Your task to perform on an android device: Open privacy settings Image 0: 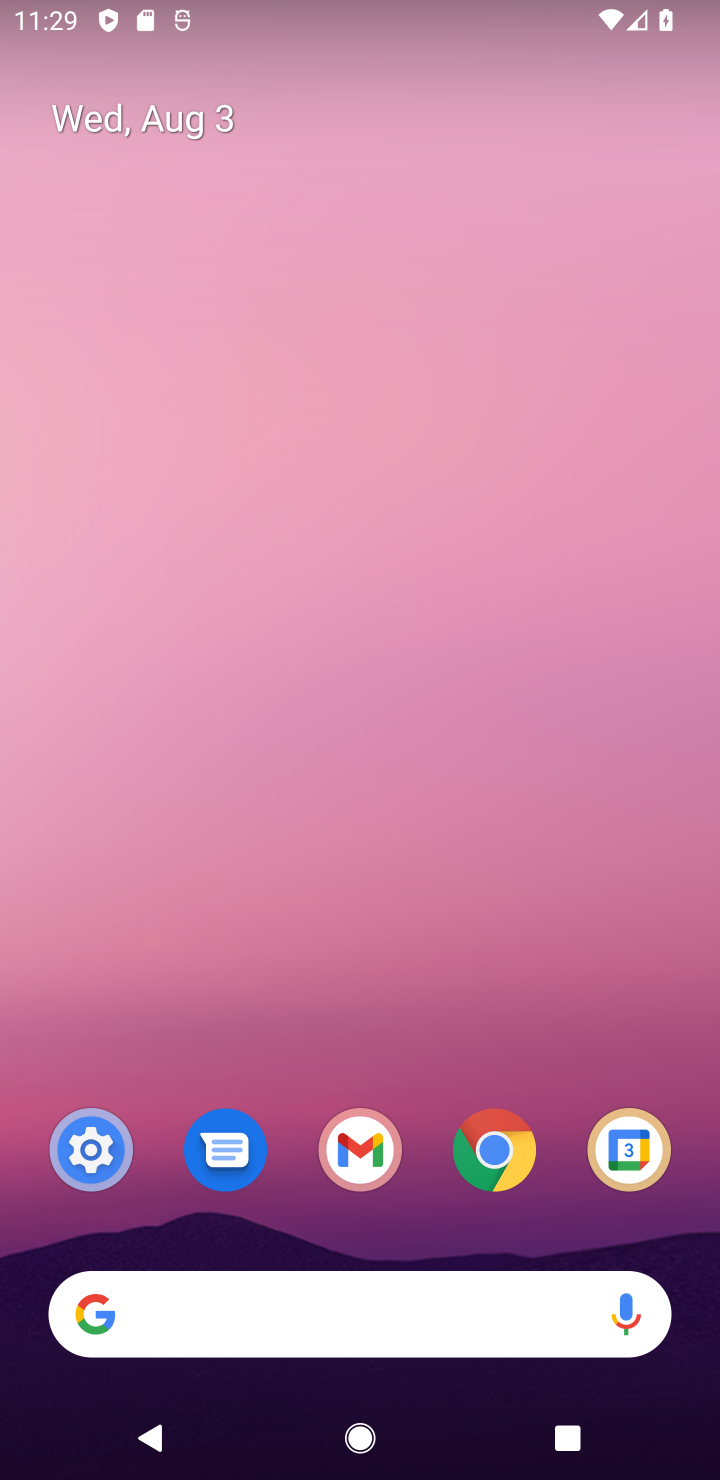
Step 0: drag from (572, 1099) to (554, 387)
Your task to perform on an android device: Open privacy settings Image 1: 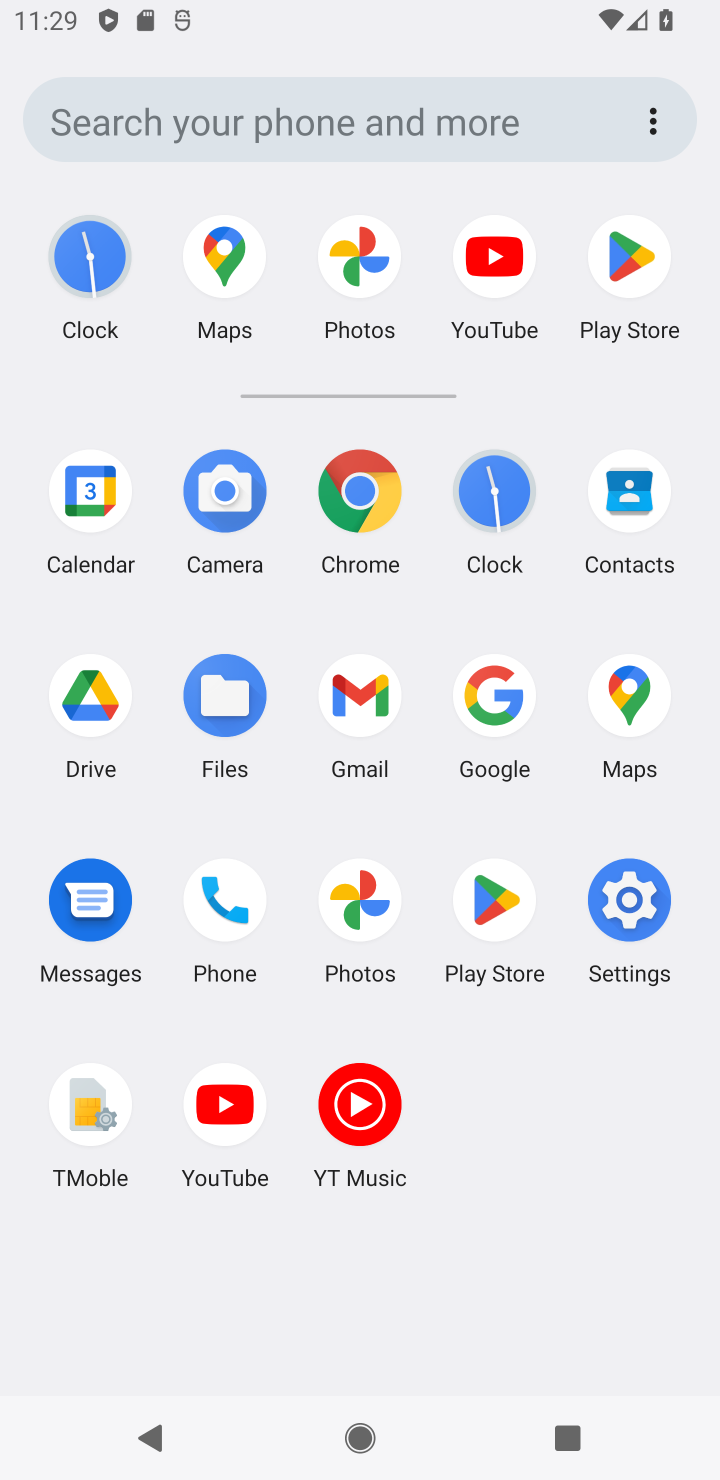
Step 1: click (636, 919)
Your task to perform on an android device: Open privacy settings Image 2: 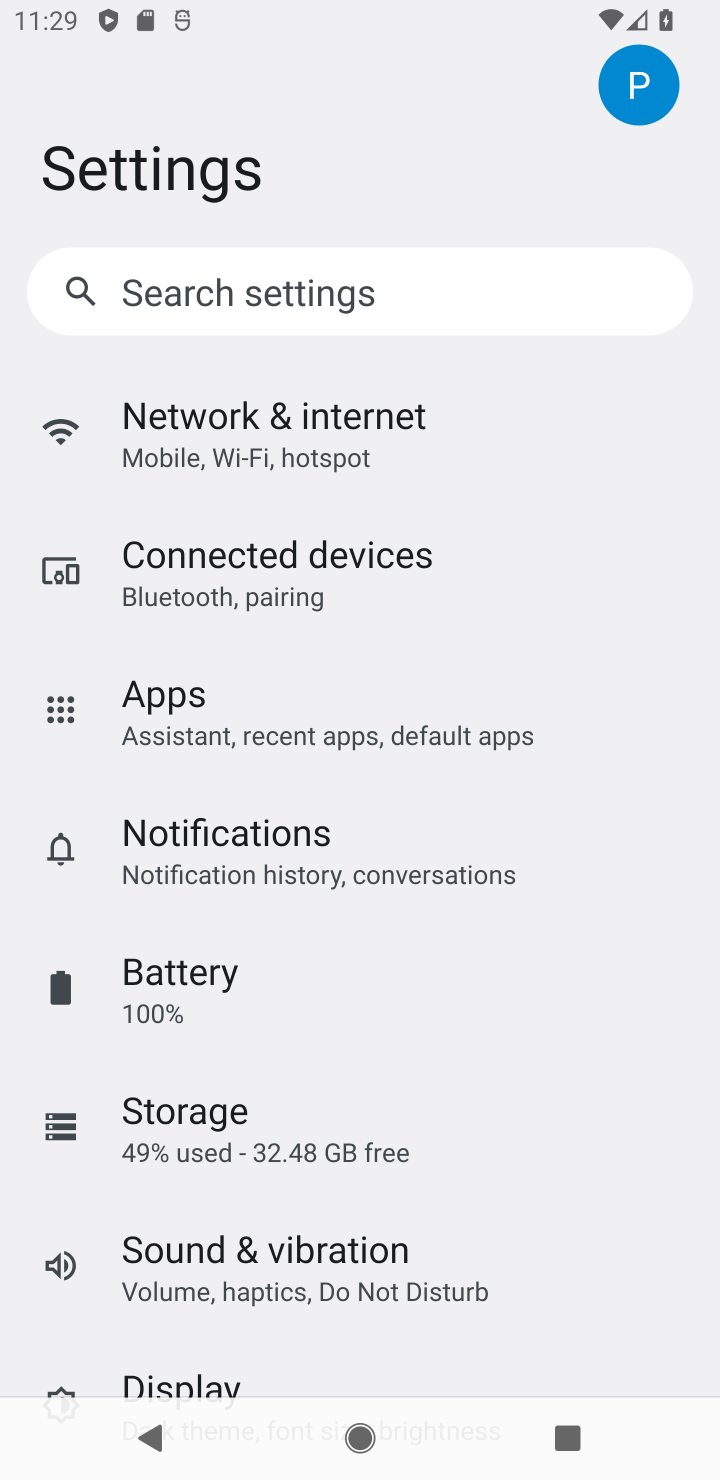
Step 2: drag from (609, 1092) to (622, 934)
Your task to perform on an android device: Open privacy settings Image 3: 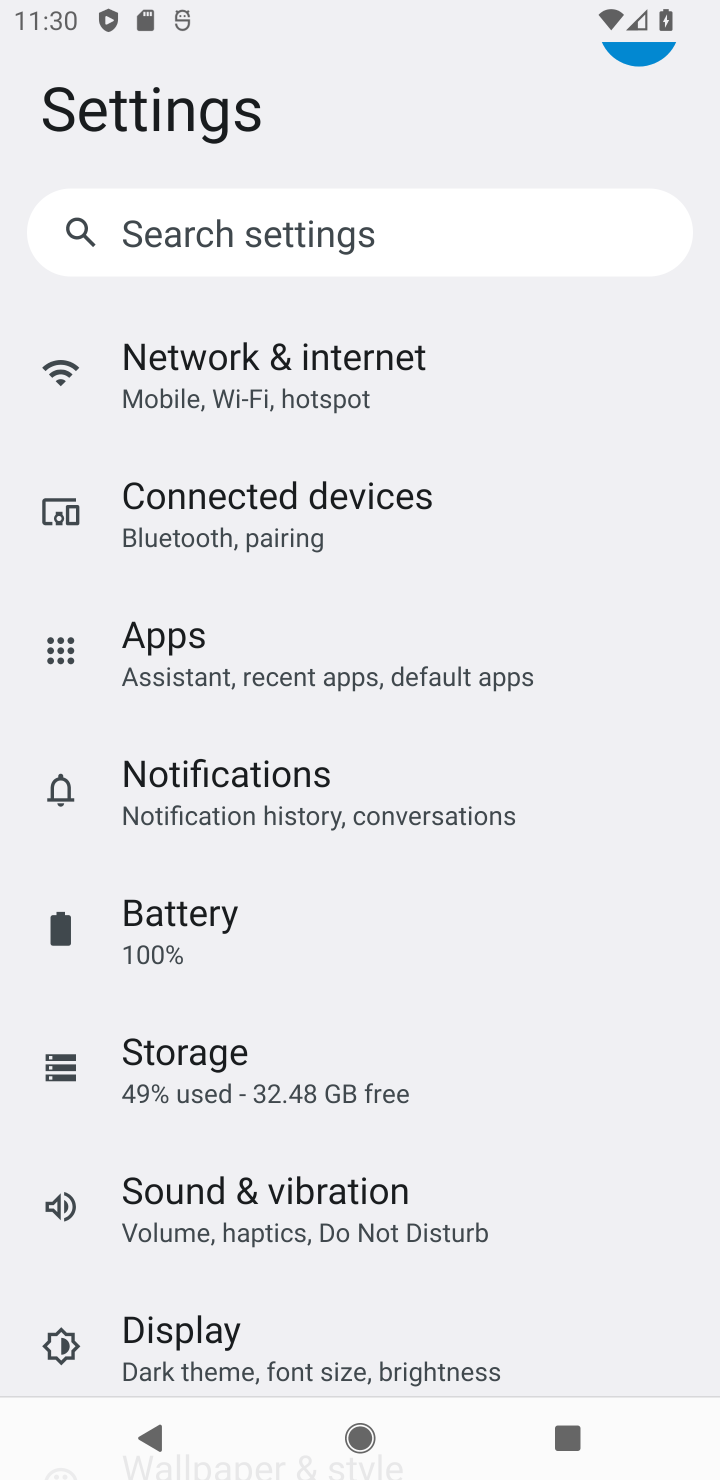
Step 3: drag from (587, 1160) to (602, 935)
Your task to perform on an android device: Open privacy settings Image 4: 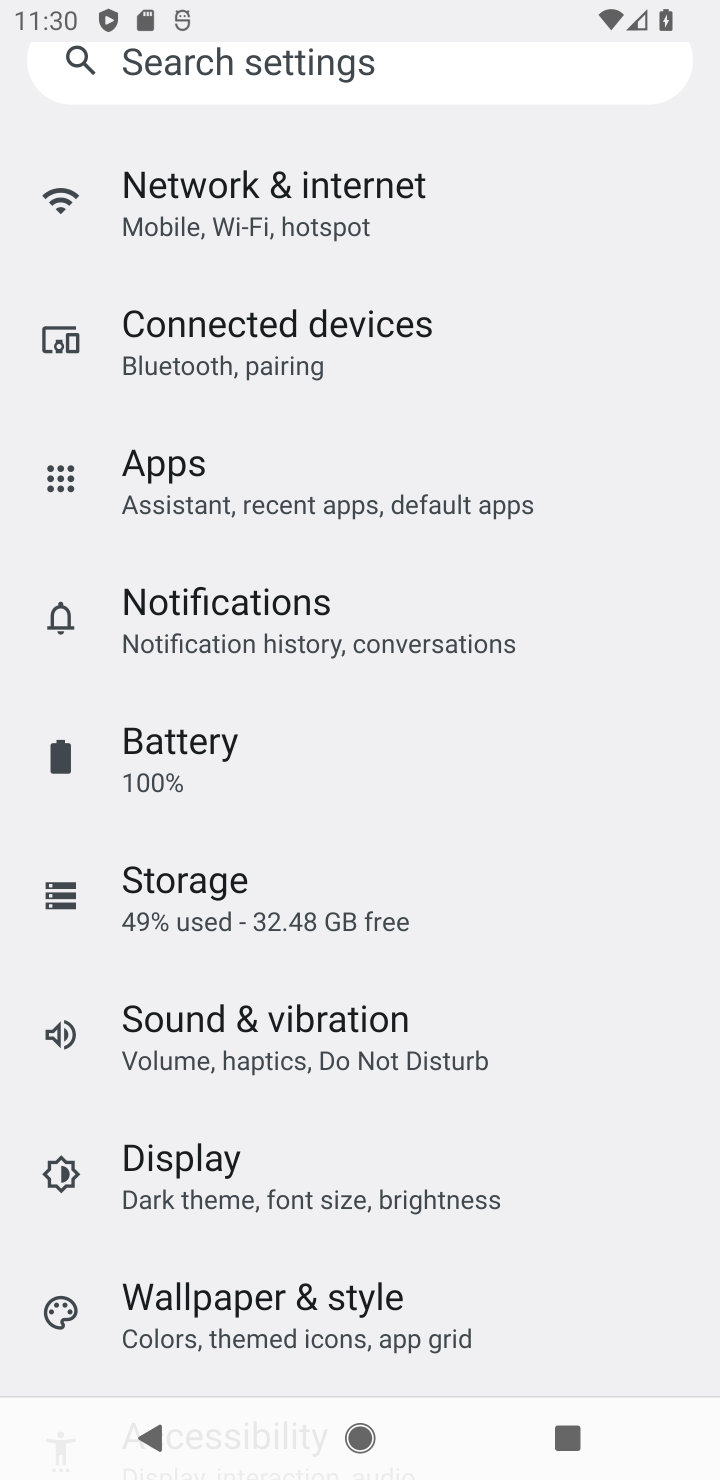
Step 4: drag from (581, 1132) to (597, 929)
Your task to perform on an android device: Open privacy settings Image 5: 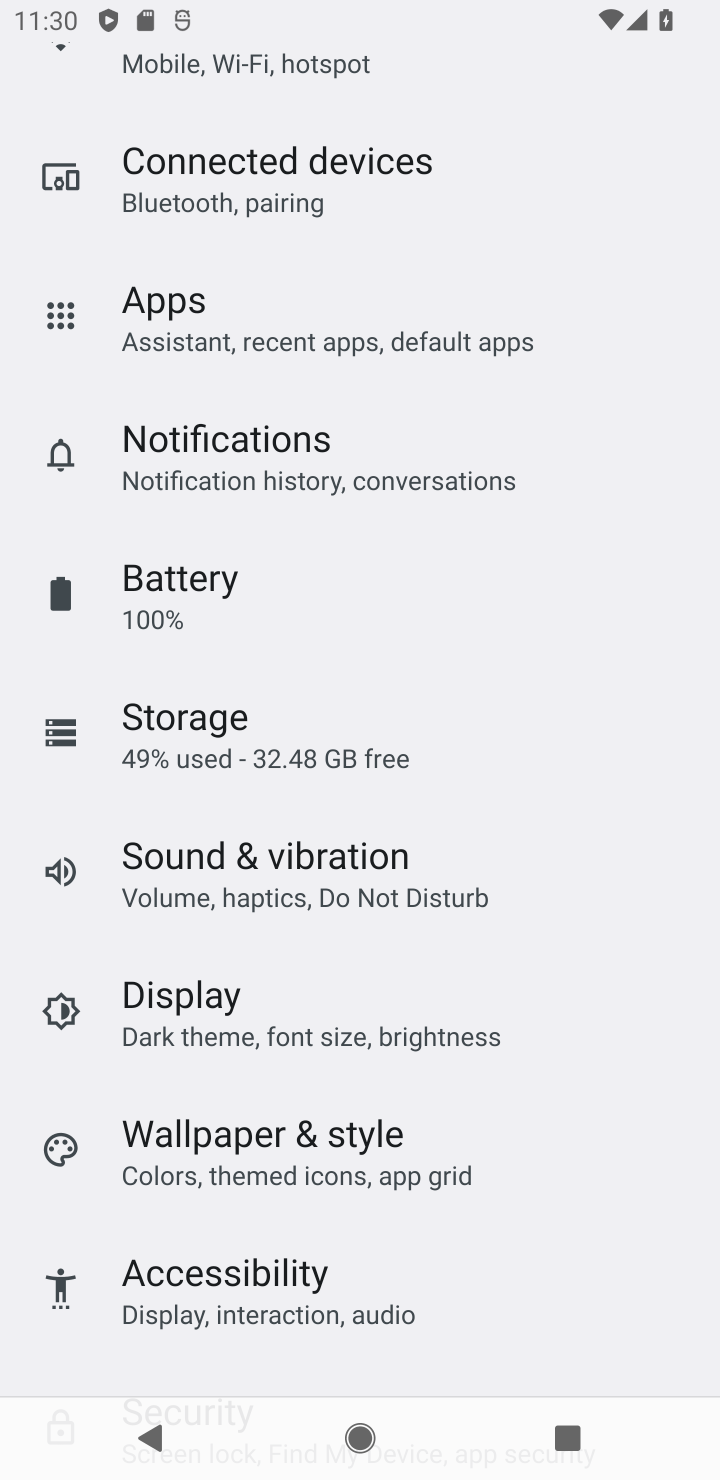
Step 5: drag from (599, 1113) to (642, 959)
Your task to perform on an android device: Open privacy settings Image 6: 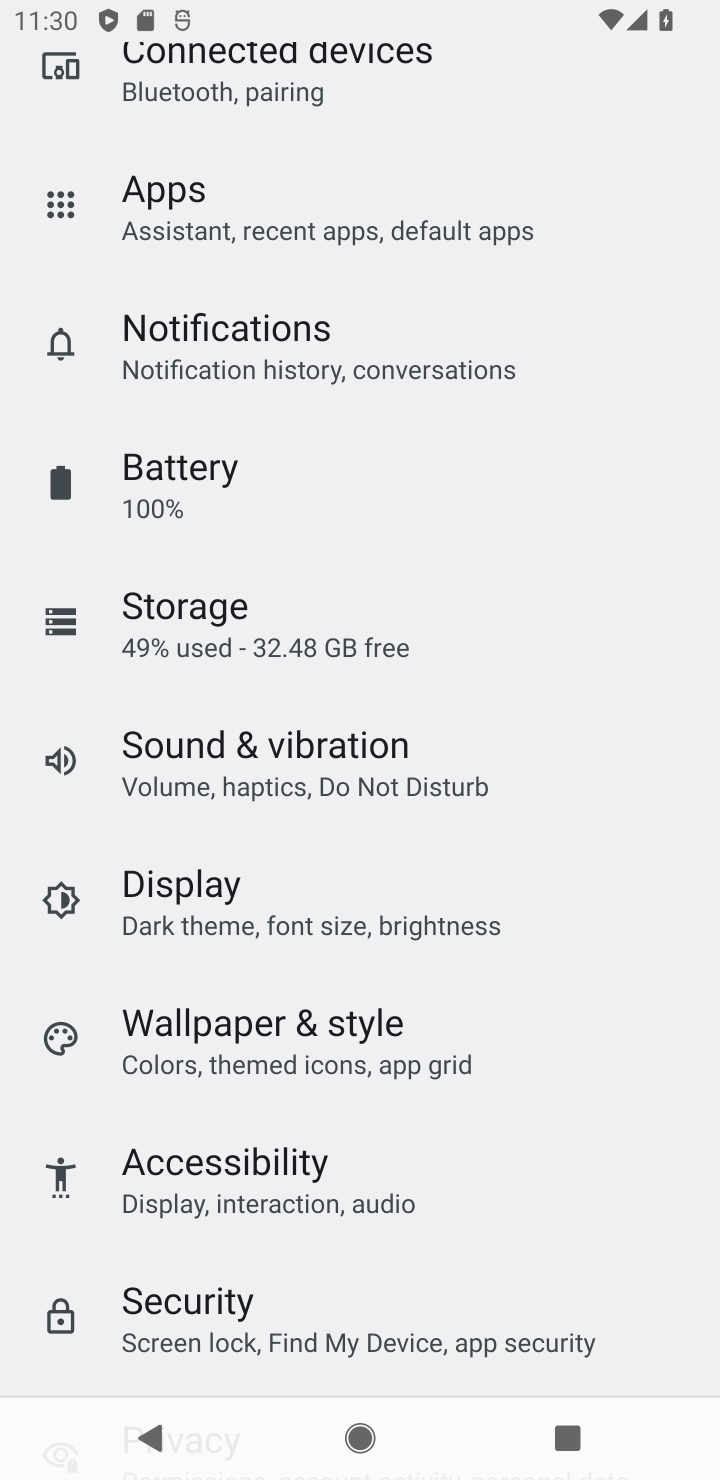
Step 6: drag from (624, 1122) to (644, 876)
Your task to perform on an android device: Open privacy settings Image 7: 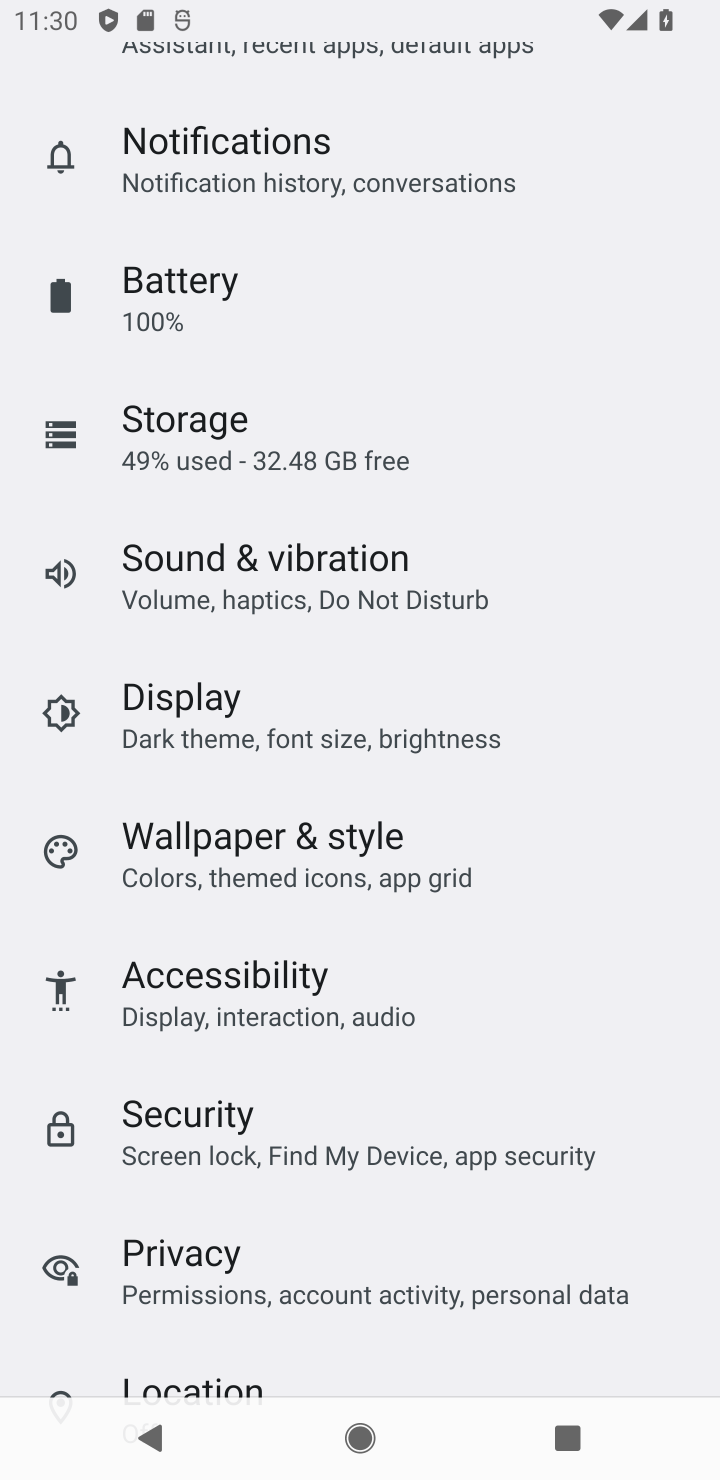
Step 7: drag from (629, 1191) to (635, 961)
Your task to perform on an android device: Open privacy settings Image 8: 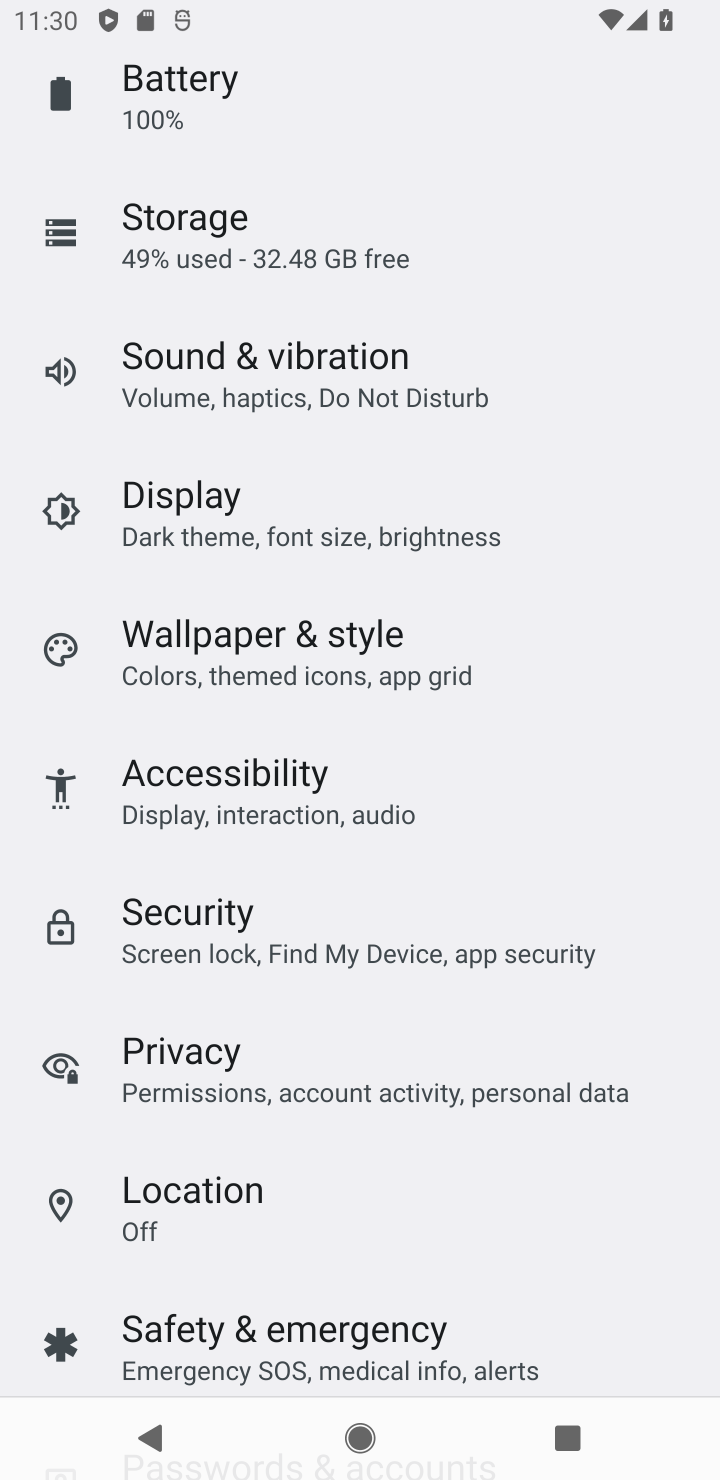
Step 8: drag from (591, 1178) to (593, 916)
Your task to perform on an android device: Open privacy settings Image 9: 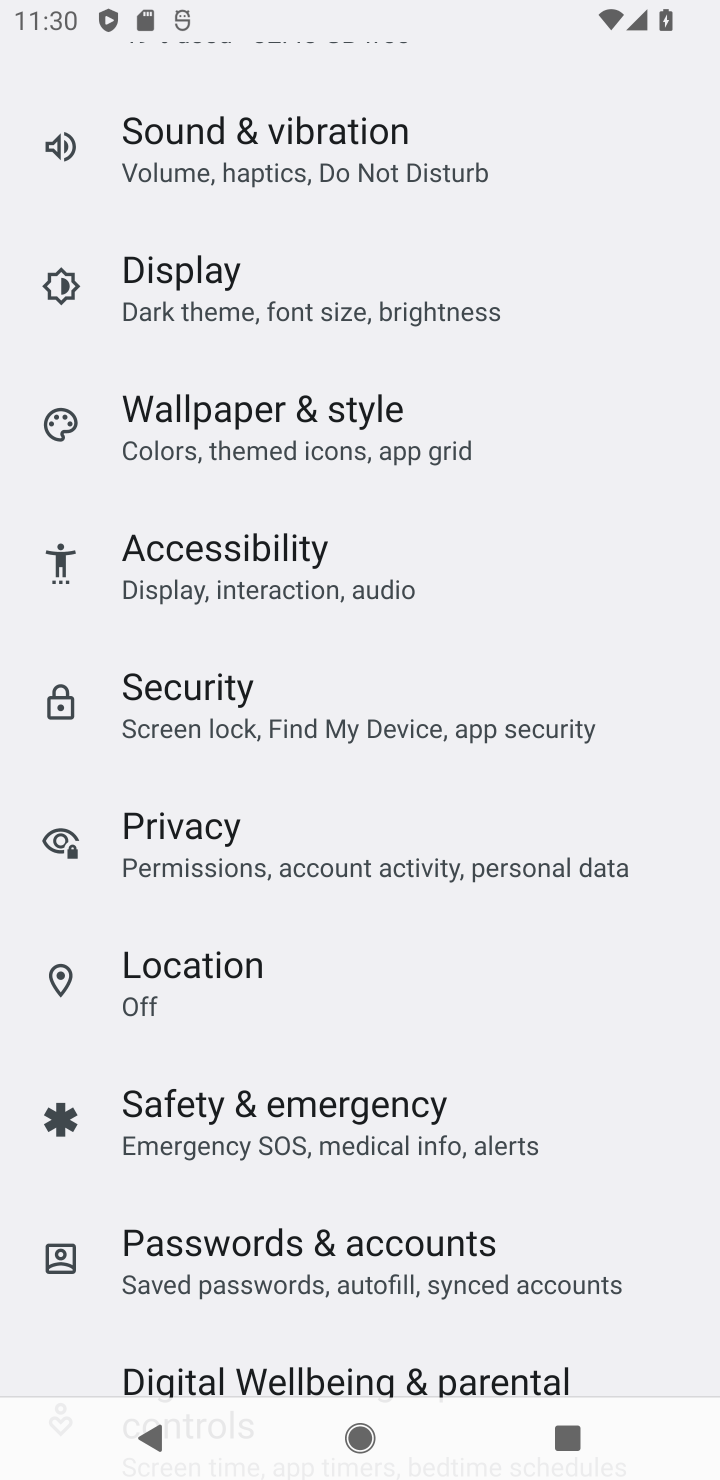
Step 9: drag from (625, 1185) to (653, 901)
Your task to perform on an android device: Open privacy settings Image 10: 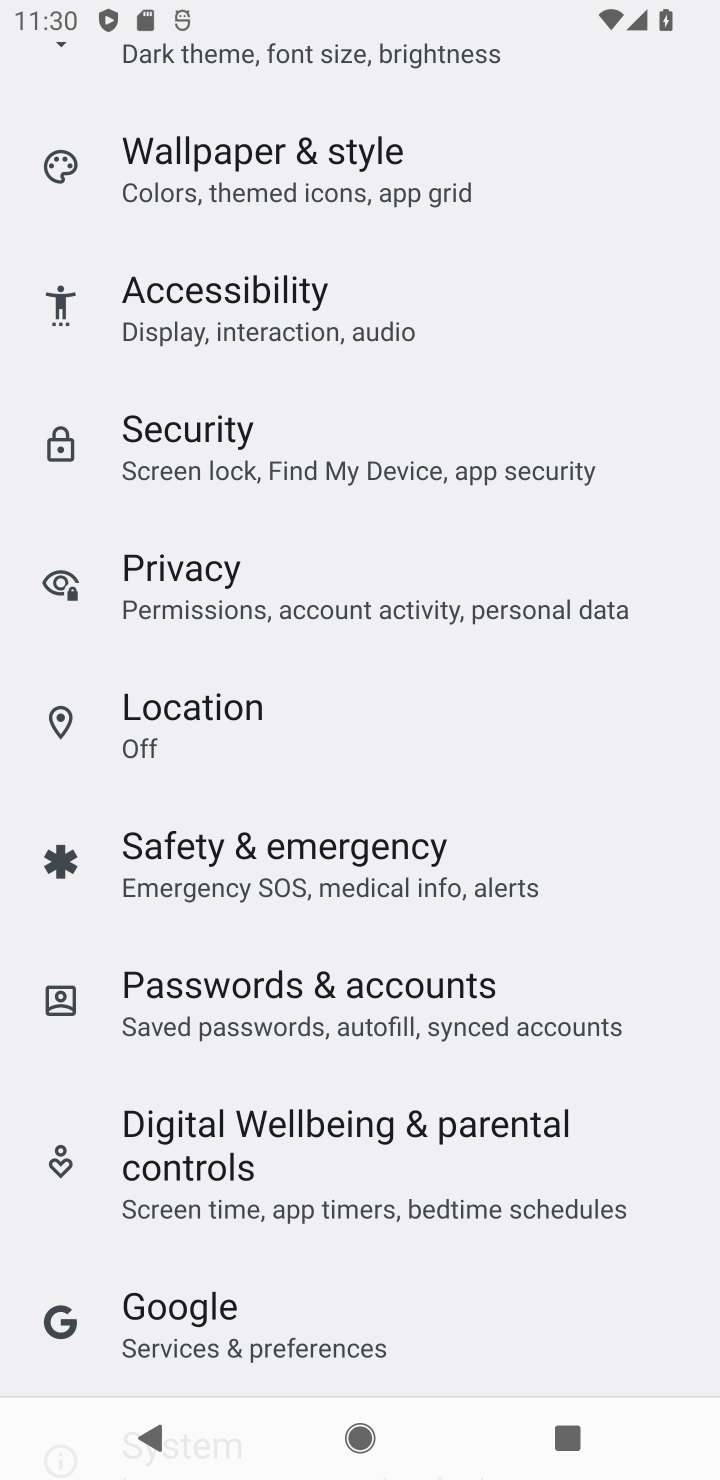
Step 10: click (573, 601)
Your task to perform on an android device: Open privacy settings Image 11: 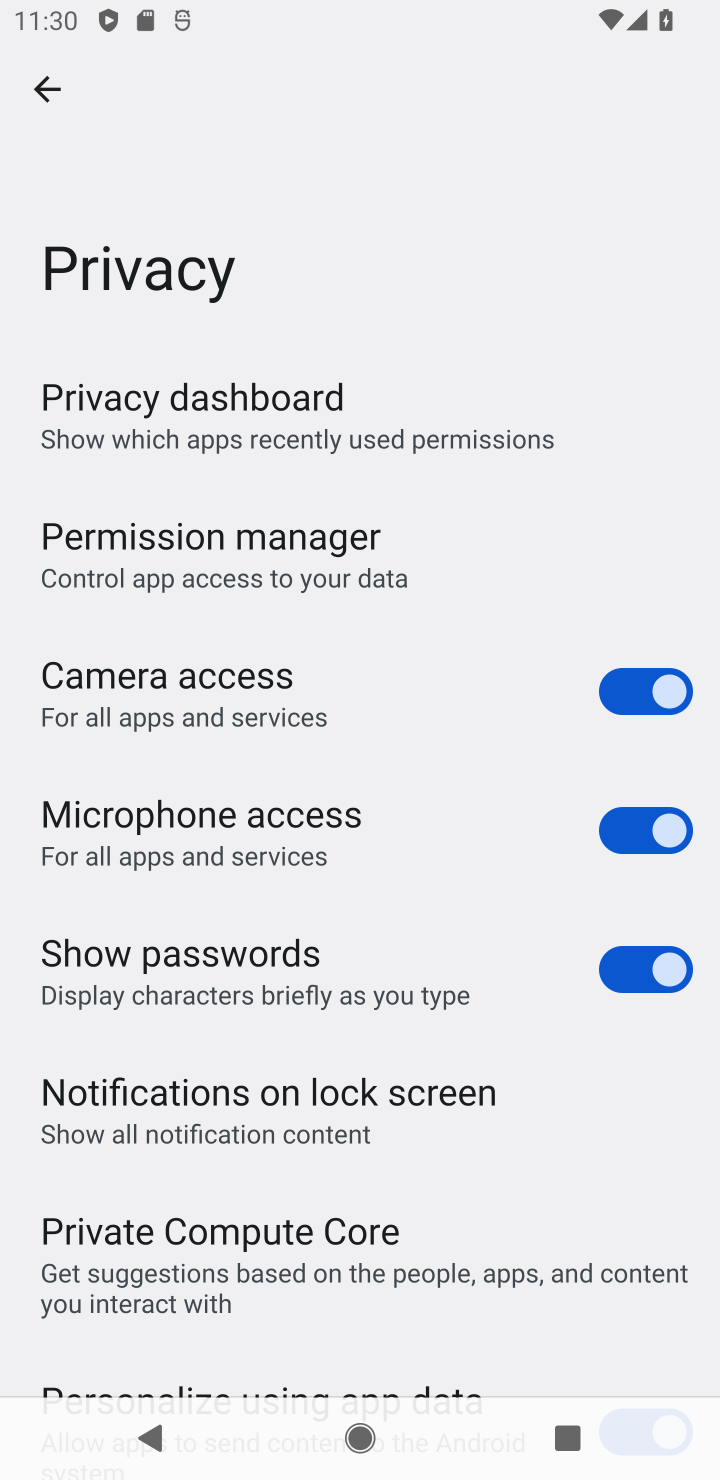
Step 11: task complete